Your task to perform on an android device: Search for Italian restaurants on Maps Image 0: 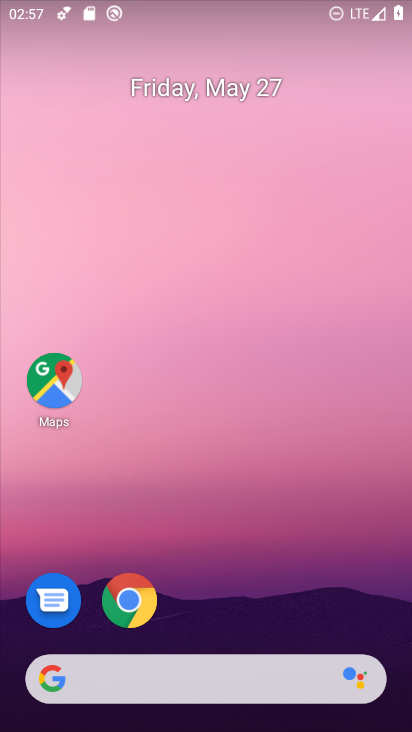
Step 0: drag from (211, 722) to (210, 152)
Your task to perform on an android device: Search for Italian restaurants on Maps Image 1: 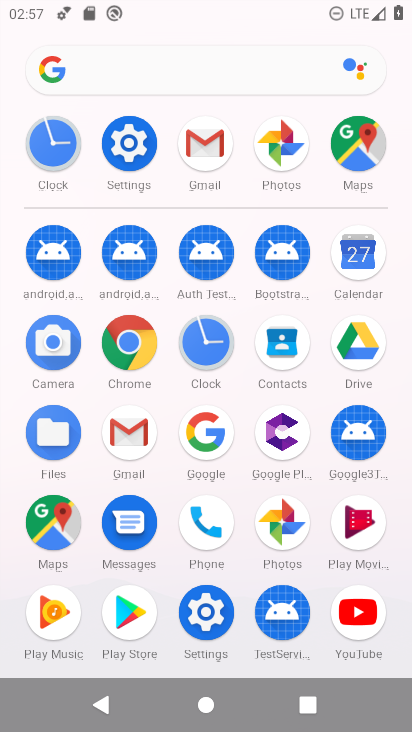
Step 1: click (54, 512)
Your task to perform on an android device: Search for Italian restaurants on Maps Image 2: 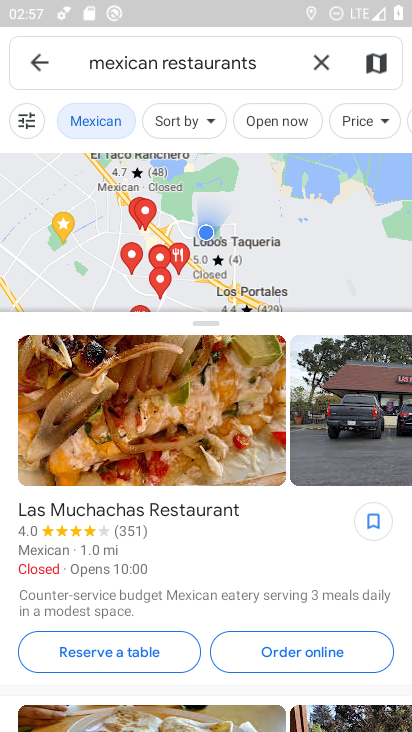
Step 2: click (329, 56)
Your task to perform on an android device: Search for Italian restaurants on Maps Image 3: 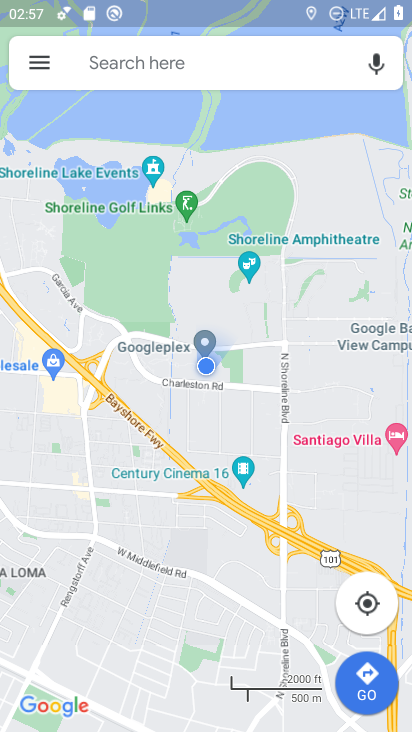
Step 3: click (212, 66)
Your task to perform on an android device: Search for Italian restaurants on Maps Image 4: 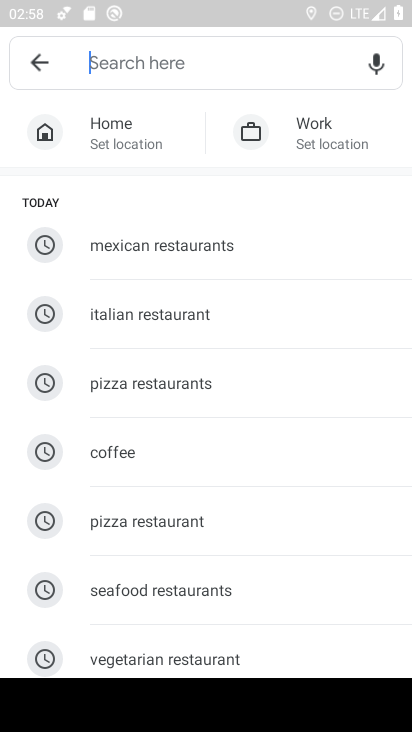
Step 4: type "italian restaurants"
Your task to perform on an android device: Search for Italian restaurants on Maps Image 5: 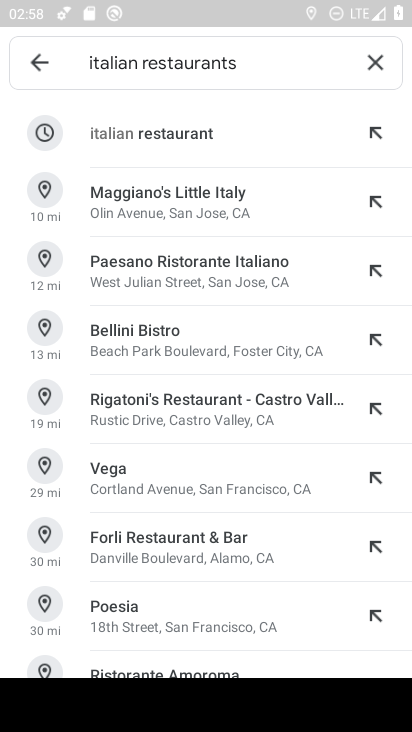
Step 5: click (196, 131)
Your task to perform on an android device: Search for Italian restaurants on Maps Image 6: 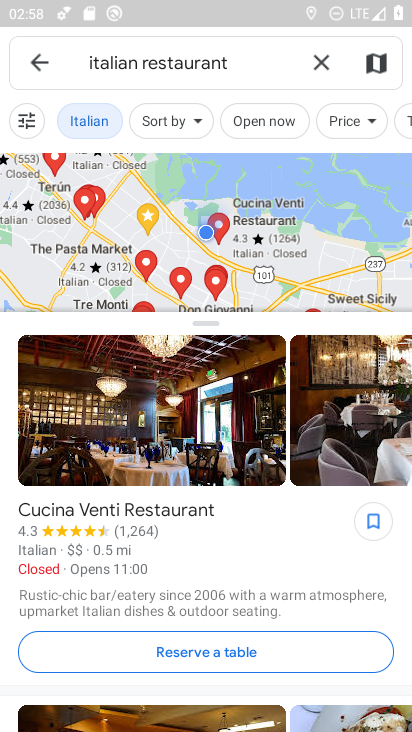
Step 6: task complete